Your task to perform on an android device: turn on airplane mode Image 0: 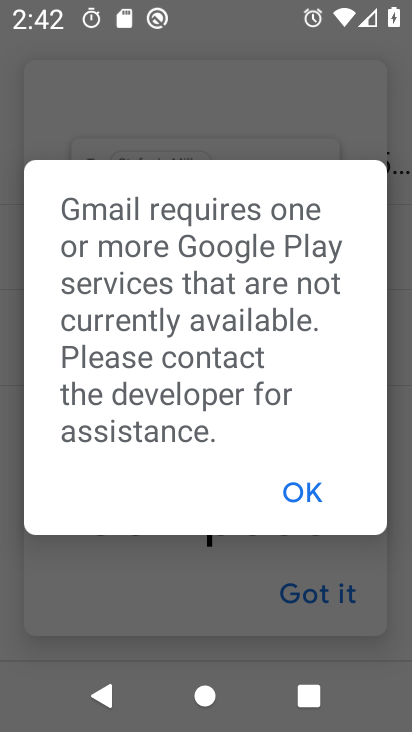
Step 0: press home button
Your task to perform on an android device: turn on airplane mode Image 1: 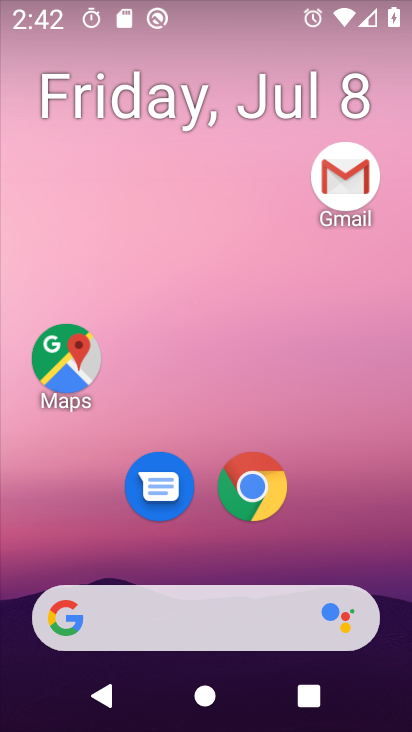
Step 1: drag from (362, 502) to (399, 114)
Your task to perform on an android device: turn on airplane mode Image 2: 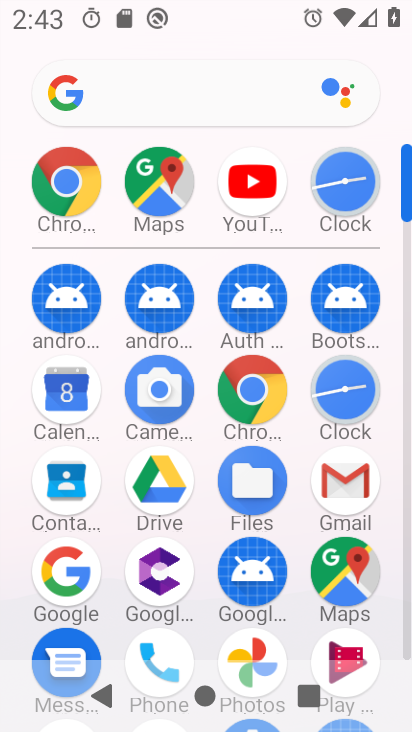
Step 2: drag from (386, 457) to (390, 230)
Your task to perform on an android device: turn on airplane mode Image 3: 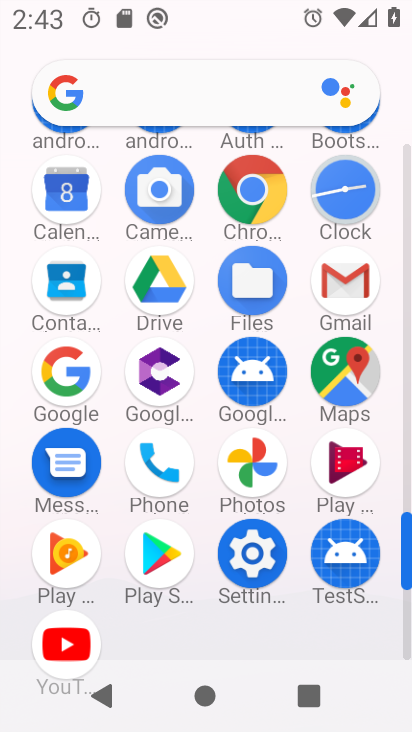
Step 3: click (263, 548)
Your task to perform on an android device: turn on airplane mode Image 4: 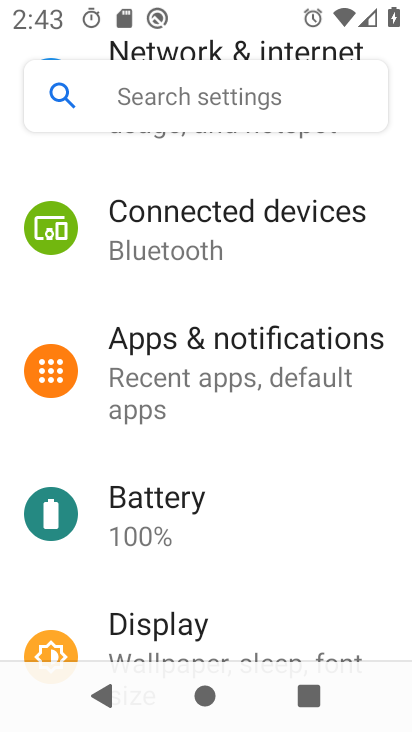
Step 4: drag from (356, 274) to (363, 436)
Your task to perform on an android device: turn on airplane mode Image 5: 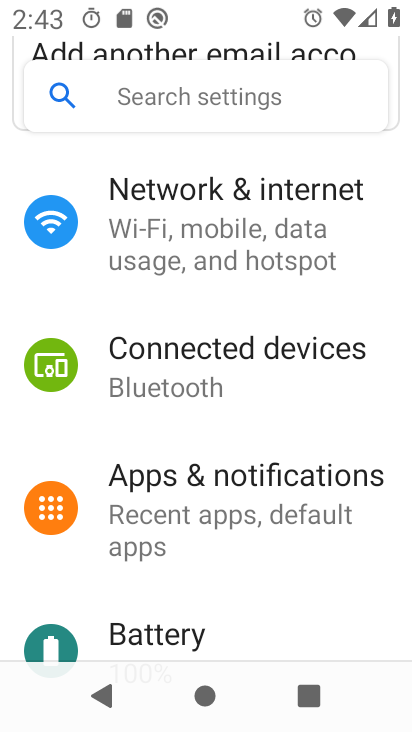
Step 5: drag from (364, 271) to (377, 434)
Your task to perform on an android device: turn on airplane mode Image 6: 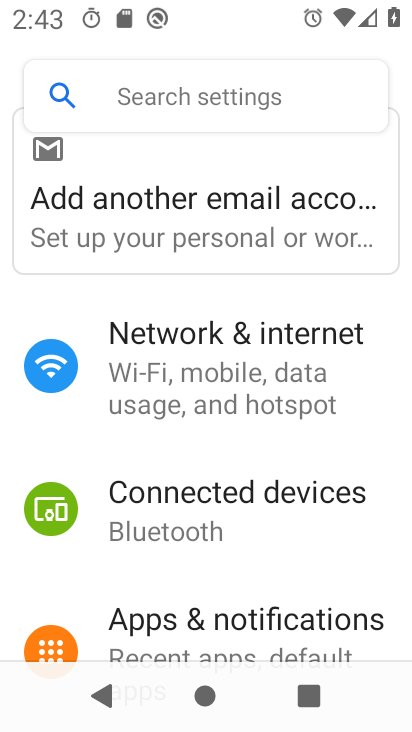
Step 6: click (321, 385)
Your task to perform on an android device: turn on airplane mode Image 7: 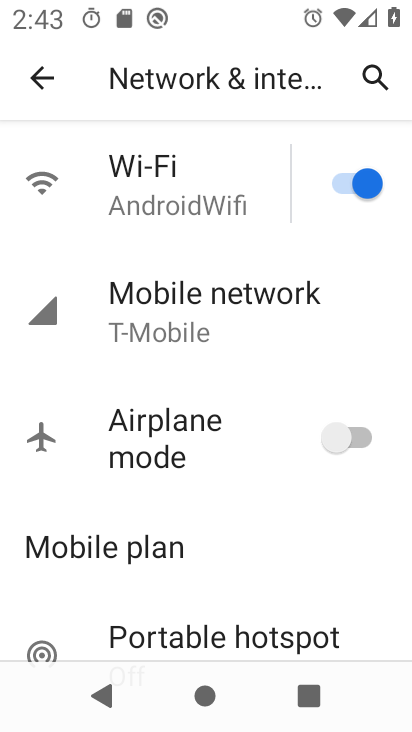
Step 7: click (357, 442)
Your task to perform on an android device: turn on airplane mode Image 8: 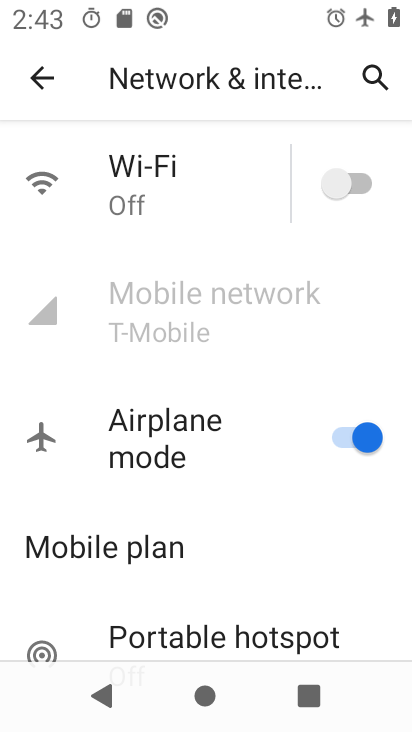
Step 8: task complete